Your task to perform on an android device: Open settings Image 0: 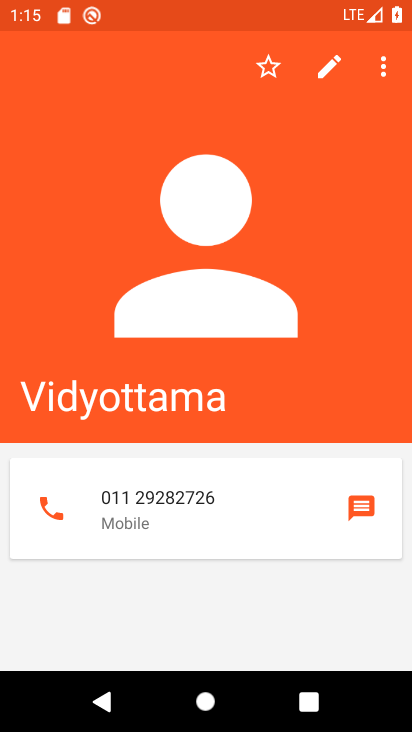
Step 0: press home button
Your task to perform on an android device: Open settings Image 1: 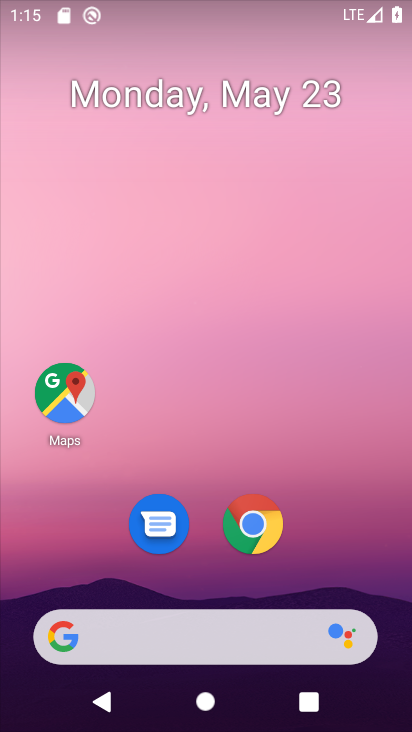
Step 1: drag from (284, 478) to (290, 199)
Your task to perform on an android device: Open settings Image 2: 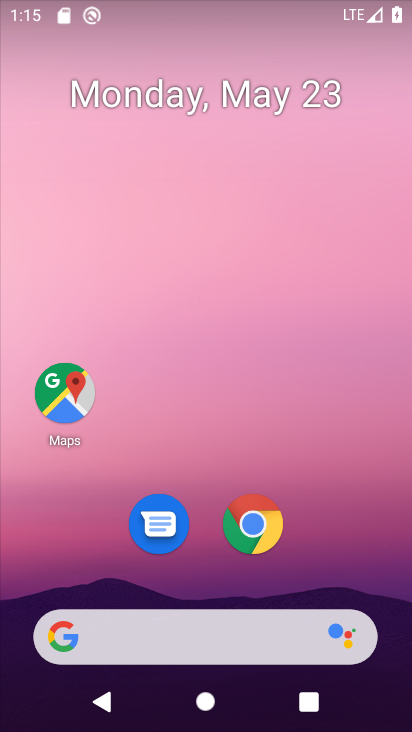
Step 2: drag from (215, 474) to (322, 34)
Your task to perform on an android device: Open settings Image 3: 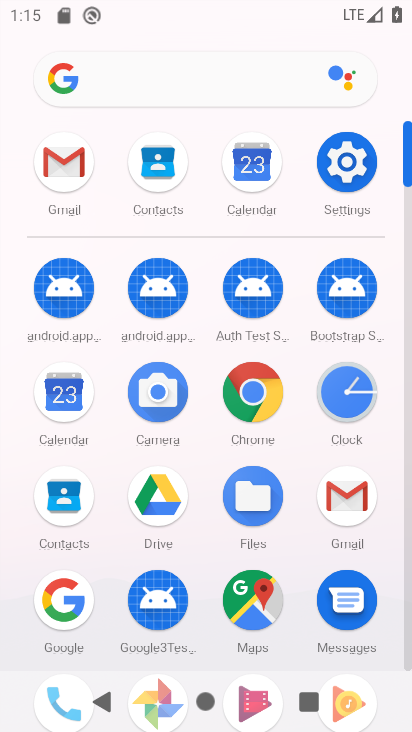
Step 3: click (341, 169)
Your task to perform on an android device: Open settings Image 4: 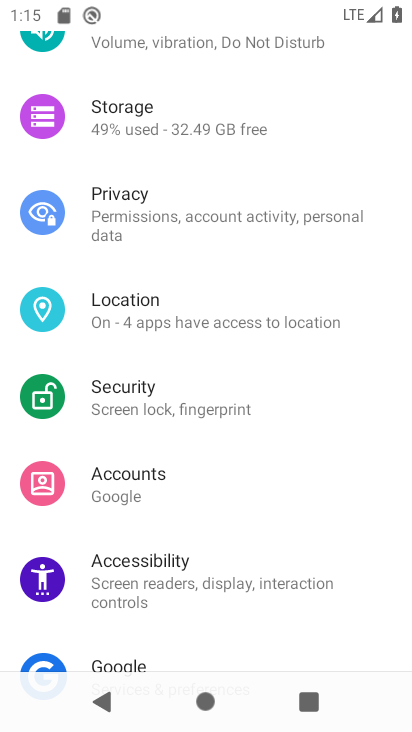
Step 4: task complete